Your task to perform on an android device: open app "Mercado Libre" Image 0: 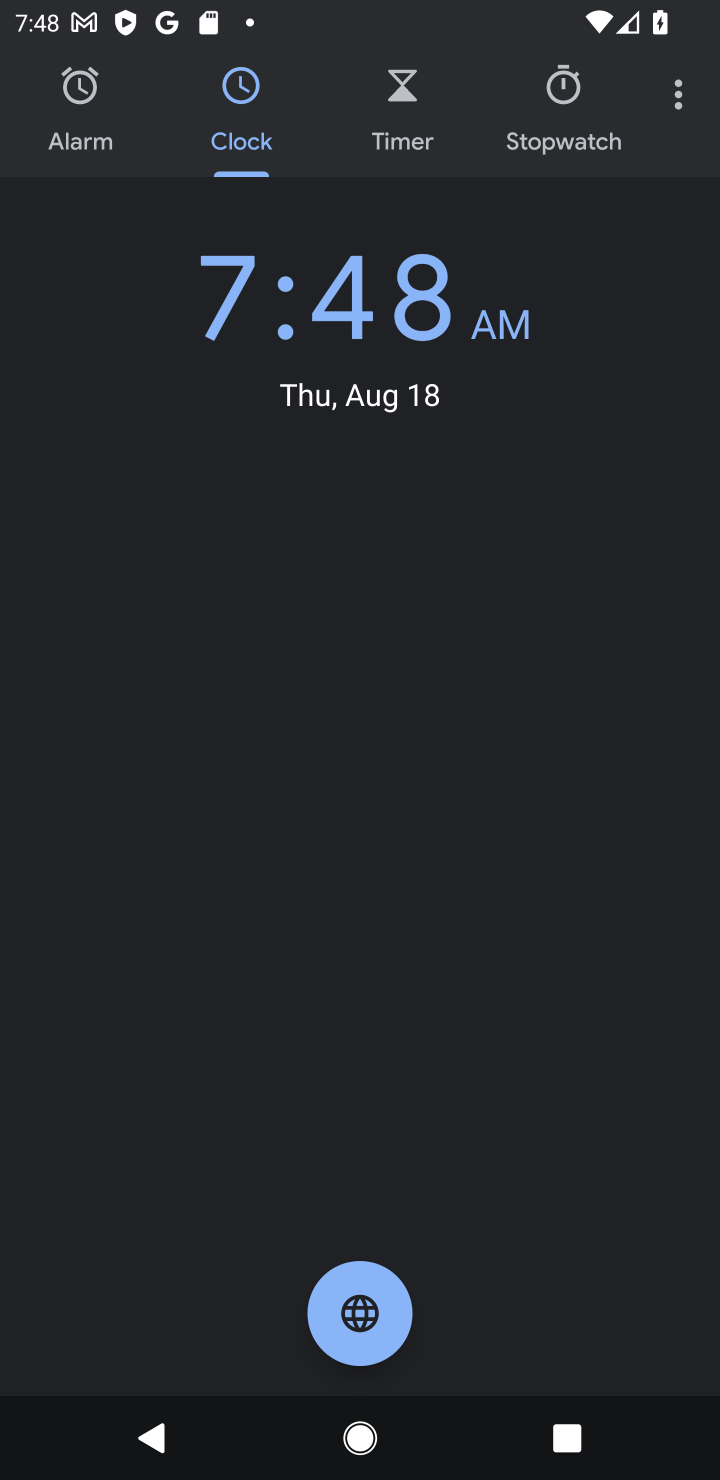
Step 0: press home button
Your task to perform on an android device: open app "Mercado Libre" Image 1: 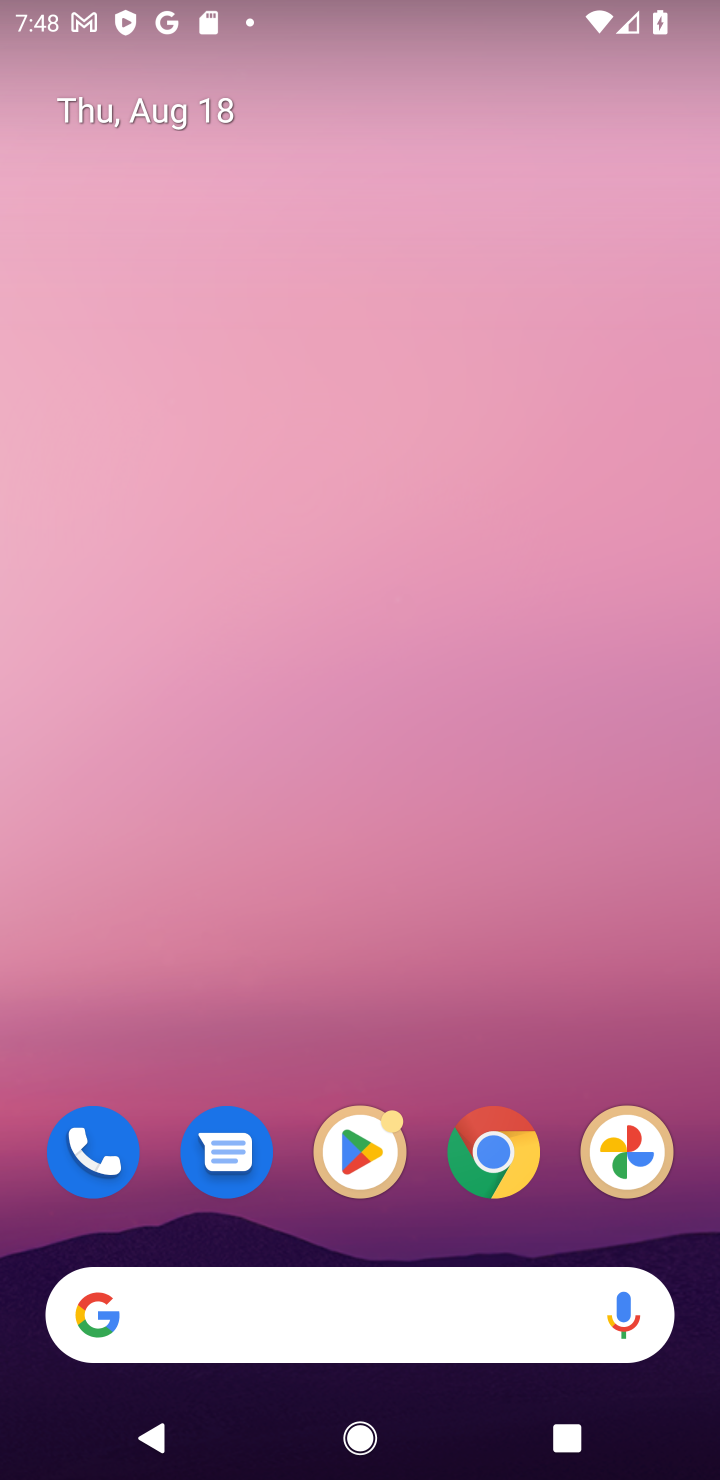
Step 1: click (360, 1151)
Your task to perform on an android device: open app "Mercado Libre" Image 2: 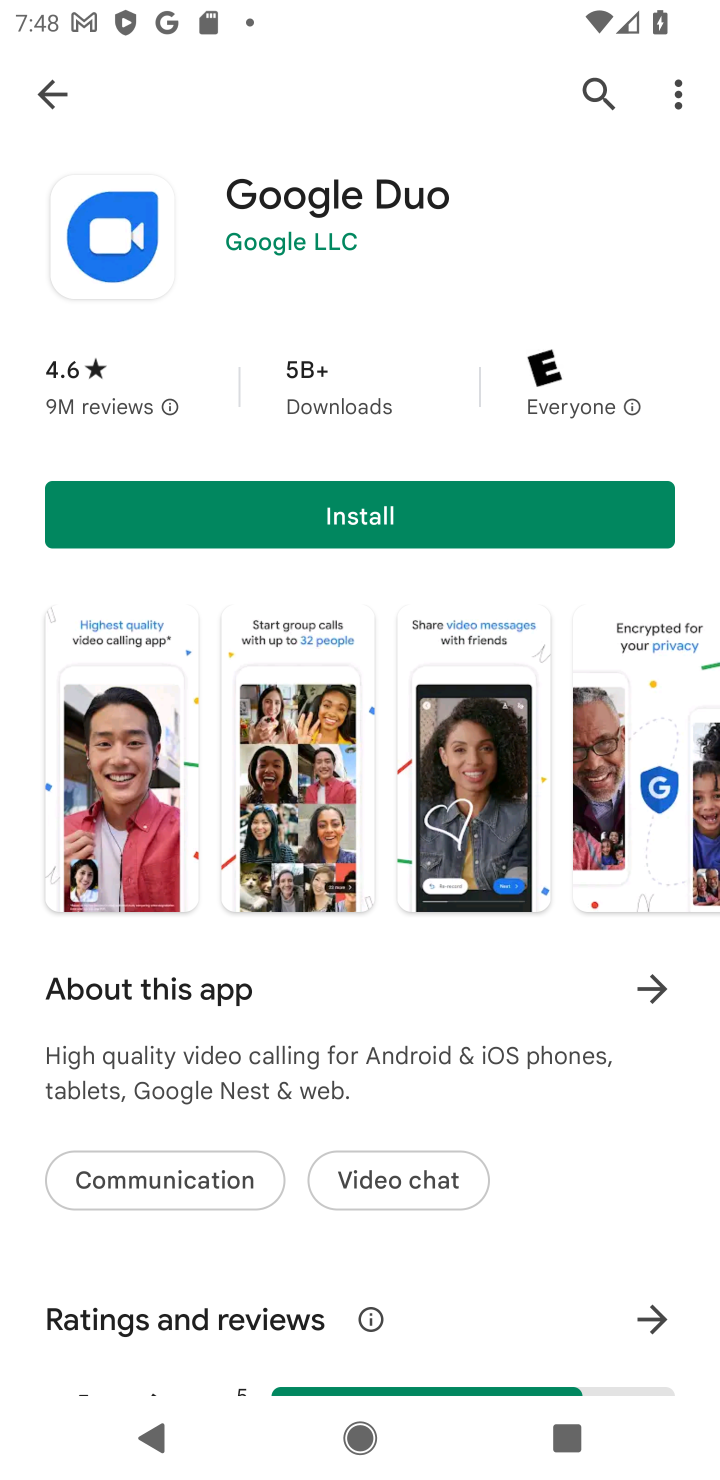
Step 2: click (588, 76)
Your task to perform on an android device: open app "Mercado Libre" Image 3: 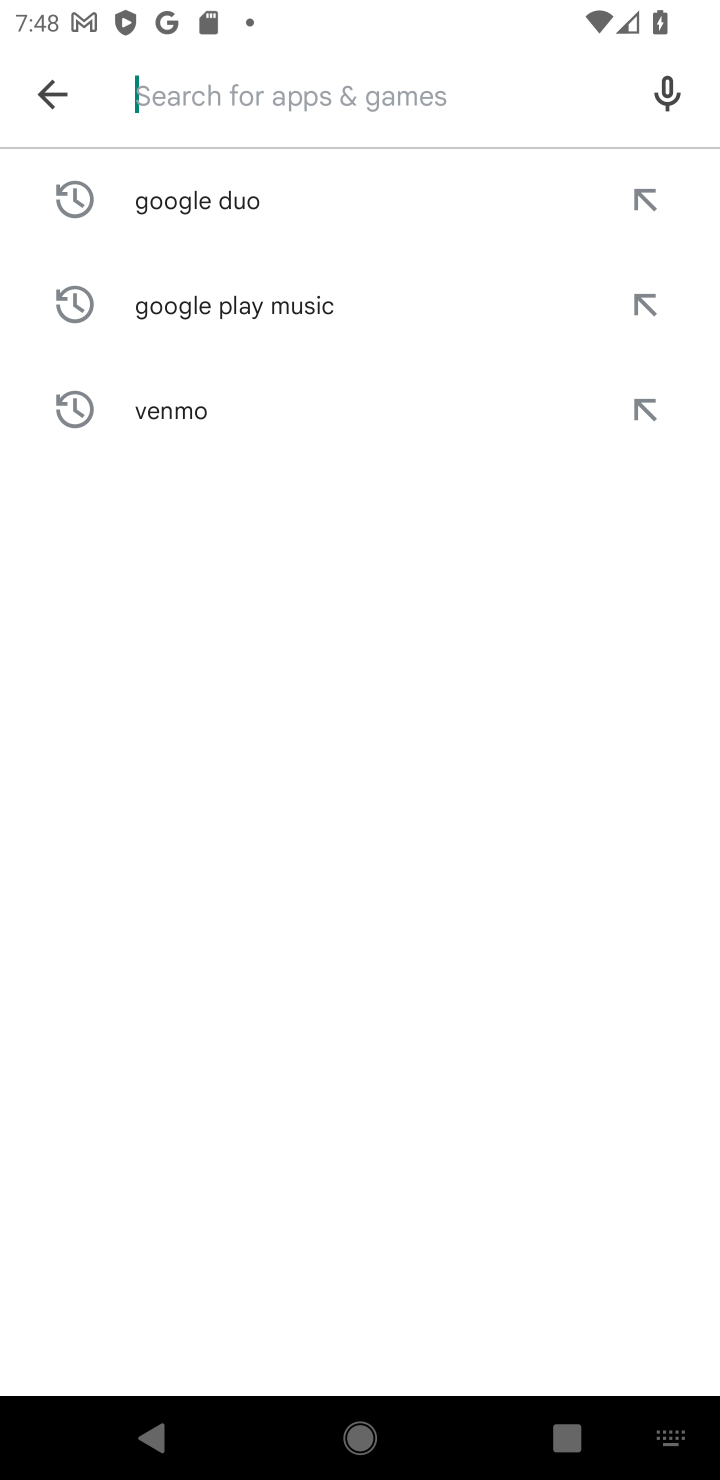
Step 3: type "mercado libre"
Your task to perform on an android device: open app "Mercado Libre" Image 4: 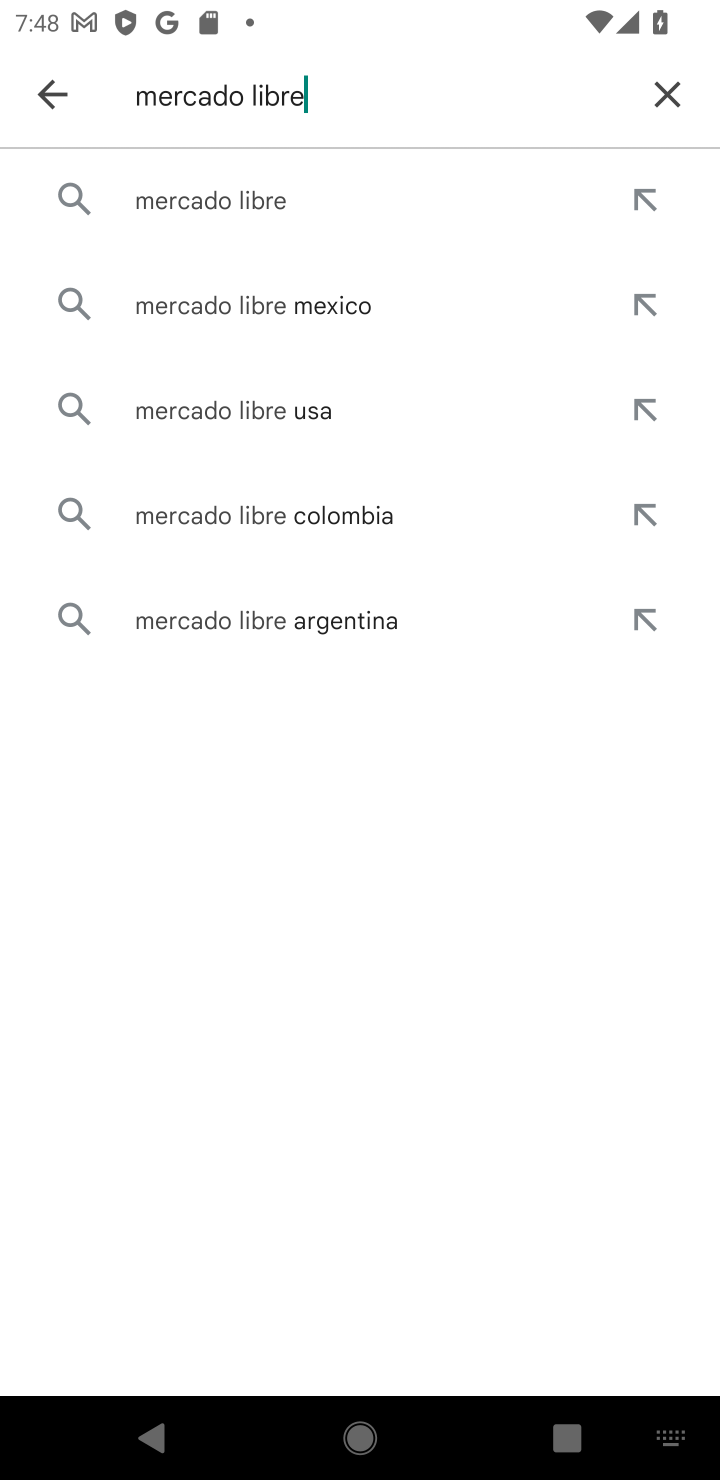
Step 4: click (301, 198)
Your task to perform on an android device: open app "Mercado Libre" Image 5: 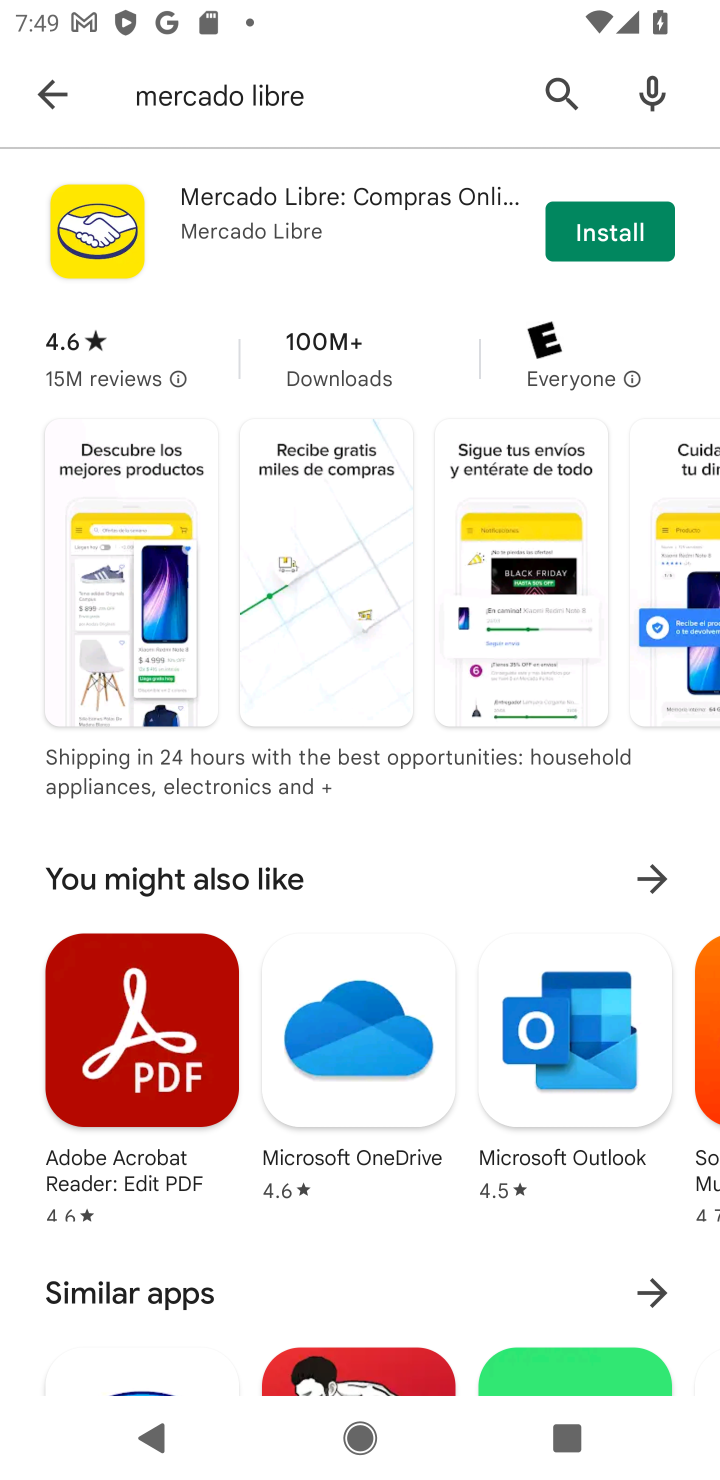
Step 5: task complete